Your task to perform on an android device: What's the weather going to be tomorrow? Image 0: 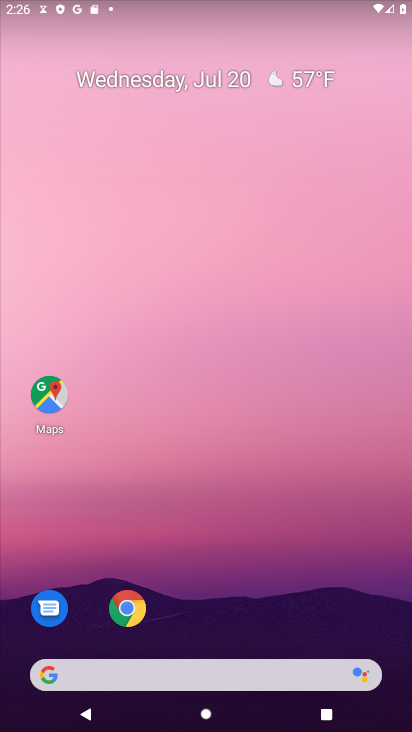
Step 0: drag from (187, 641) to (153, 680)
Your task to perform on an android device: What's the weather going to be tomorrow? Image 1: 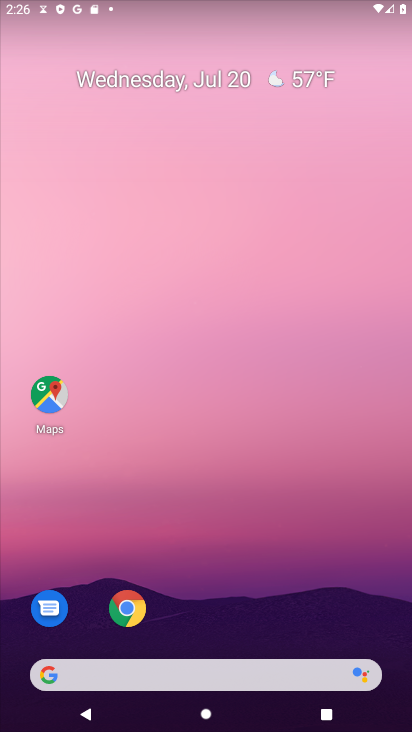
Step 1: click (153, 680)
Your task to perform on an android device: What's the weather going to be tomorrow? Image 2: 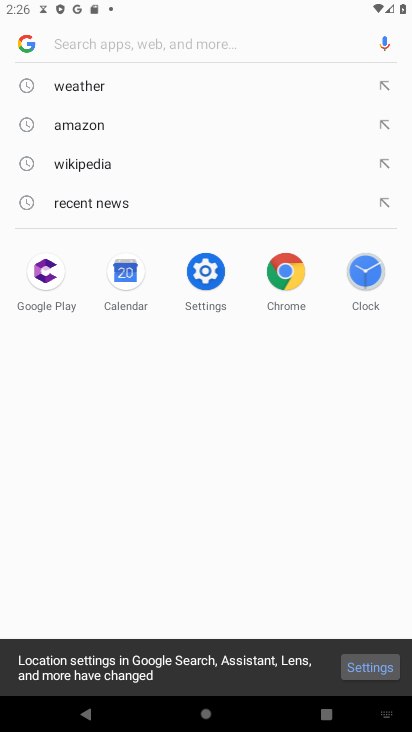
Step 2: click (61, 84)
Your task to perform on an android device: What's the weather going to be tomorrow? Image 3: 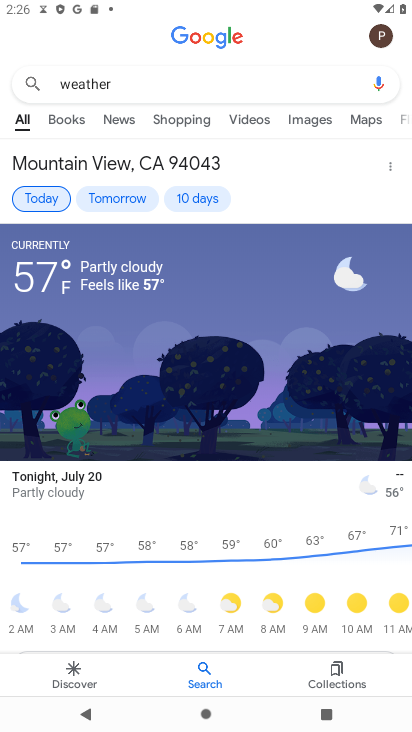
Step 3: task complete